Your task to perform on an android device: toggle data saver in the chrome app Image 0: 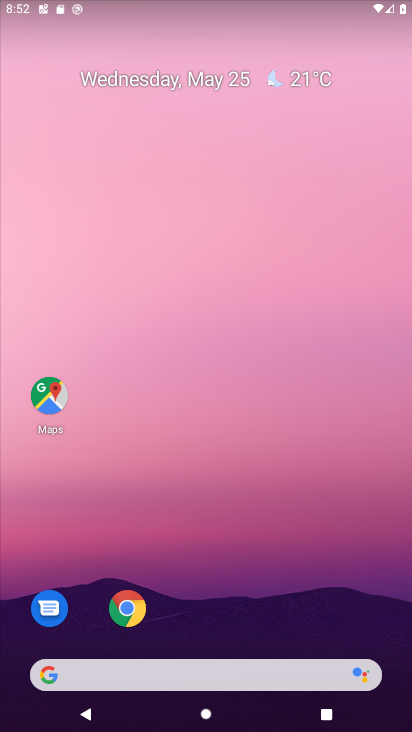
Step 0: click (122, 603)
Your task to perform on an android device: toggle data saver in the chrome app Image 1: 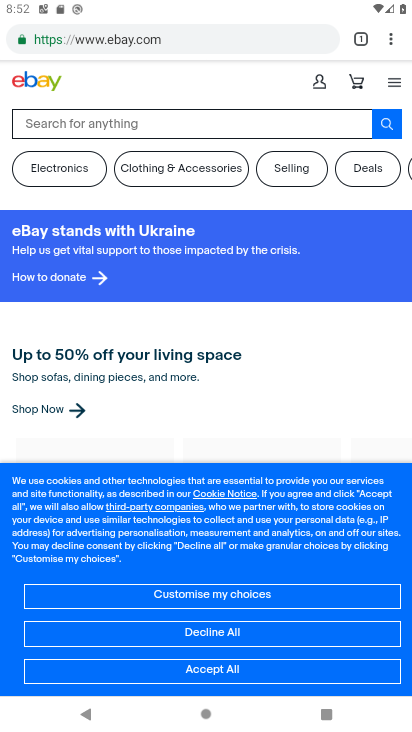
Step 1: click (390, 40)
Your task to perform on an android device: toggle data saver in the chrome app Image 2: 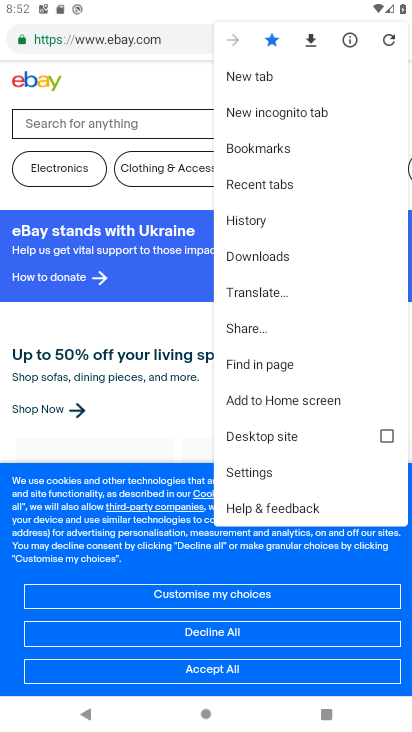
Step 2: click (254, 472)
Your task to perform on an android device: toggle data saver in the chrome app Image 3: 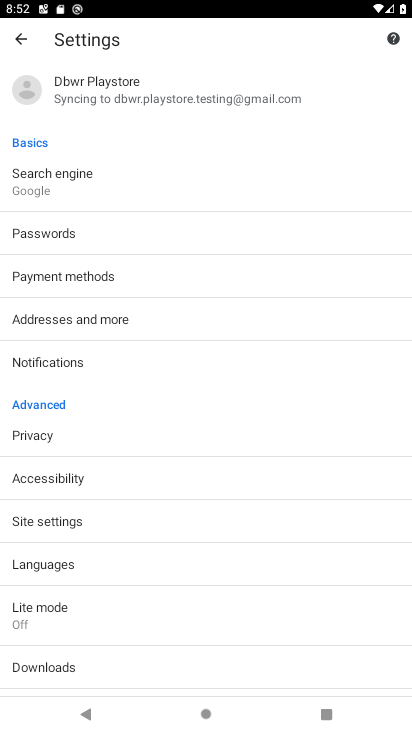
Step 3: click (44, 607)
Your task to perform on an android device: toggle data saver in the chrome app Image 4: 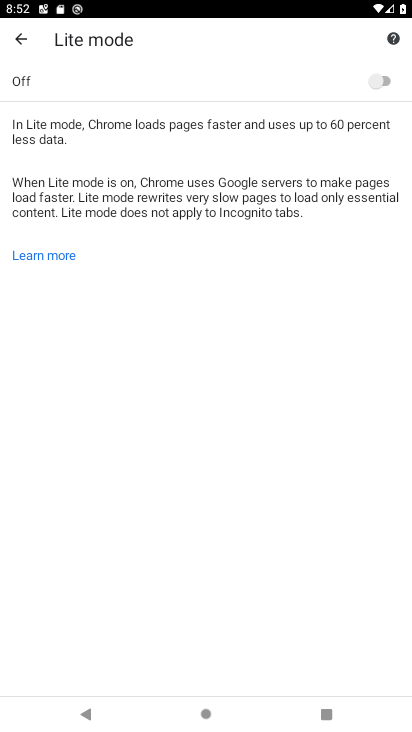
Step 4: click (387, 77)
Your task to perform on an android device: toggle data saver in the chrome app Image 5: 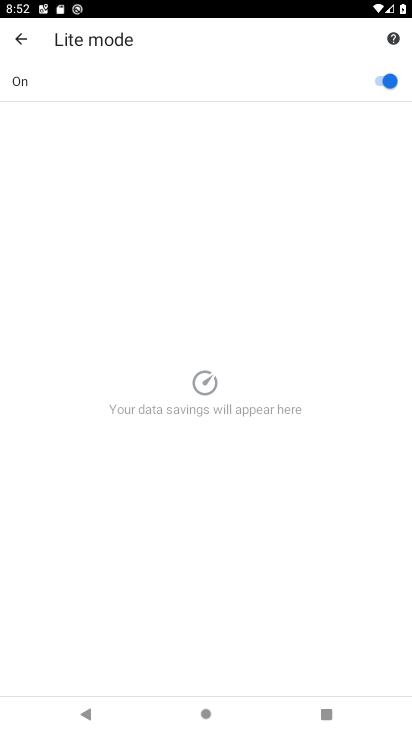
Step 5: task complete